Your task to perform on an android device: Open calendar and show me the first week of next month Image 0: 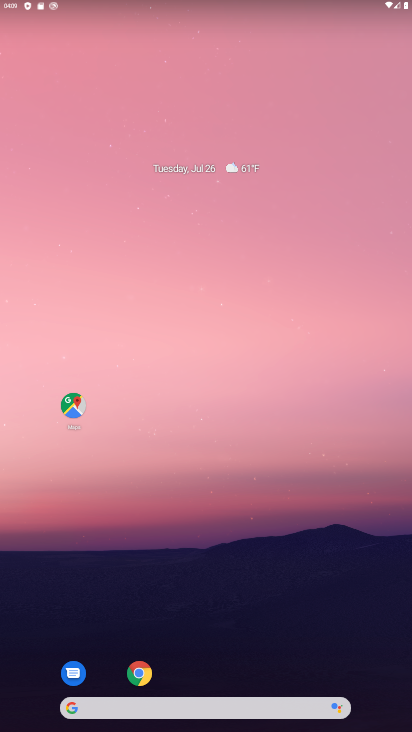
Step 0: press home button
Your task to perform on an android device: Open calendar and show me the first week of next month Image 1: 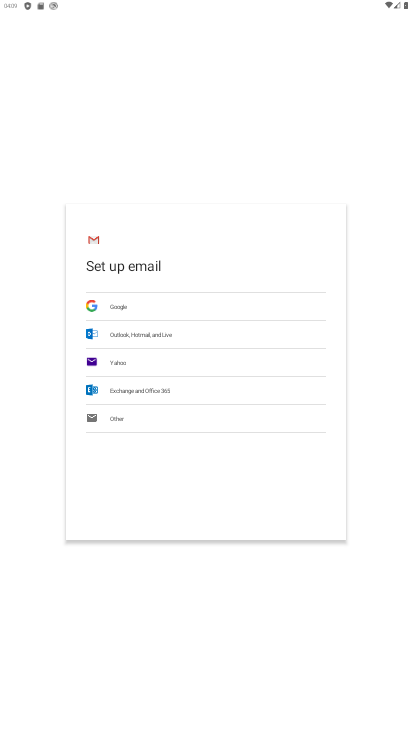
Step 1: drag from (224, 340) to (217, 189)
Your task to perform on an android device: Open calendar and show me the first week of next month Image 2: 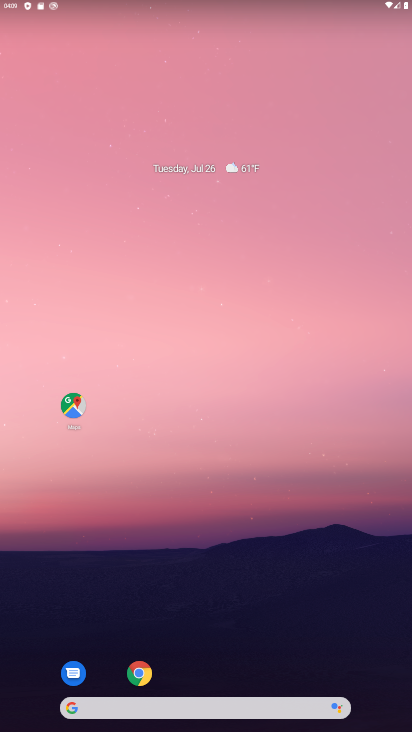
Step 2: drag from (212, 675) to (204, 104)
Your task to perform on an android device: Open calendar and show me the first week of next month Image 3: 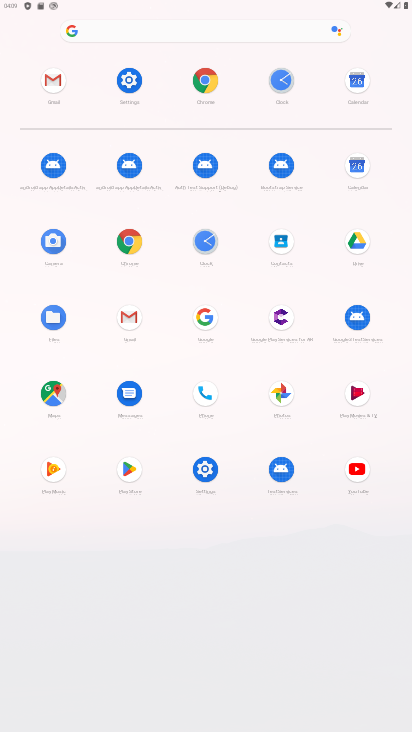
Step 3: click (356, 164)
Your task to perform on an android device: Open calendar and show me the first week of next month Image 4: 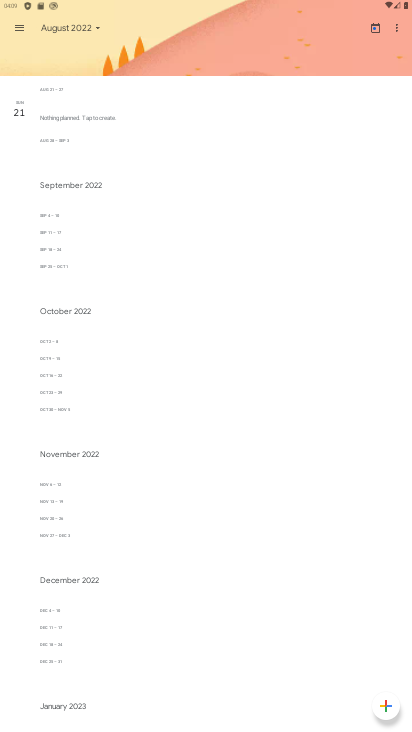
Step 4: click (96, 23)
Your task to perform on an android device: Open calendar and show me the first week of next month Image 5: 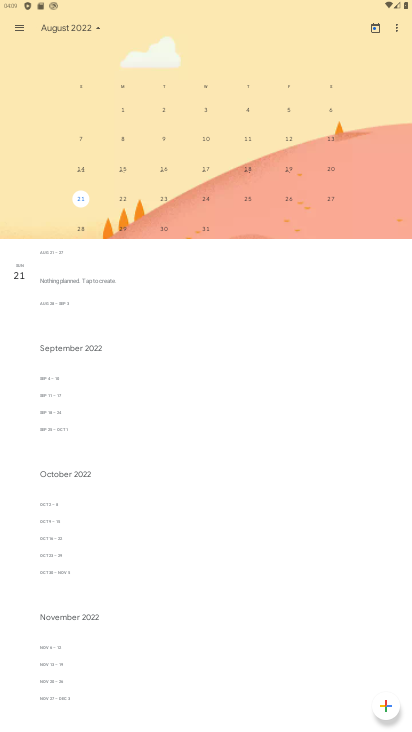
Step 5: click (122, 103)
Your task to perform on an android device: Open calendar and show me the first week of next month Image 6: 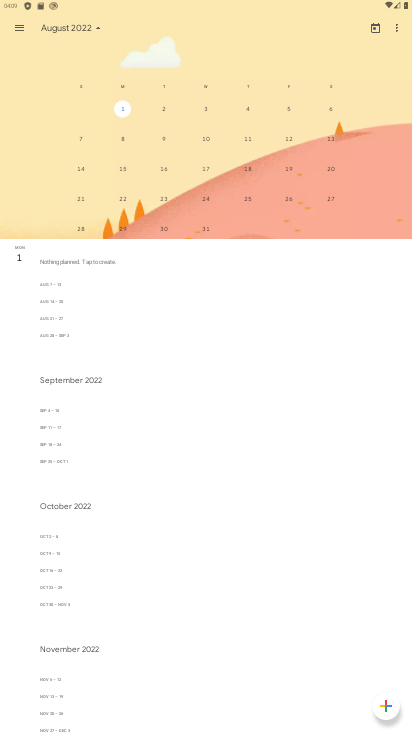
Step 6: task complete